Your task to perform on an android device: change notification settings in the gmail app Image 0: 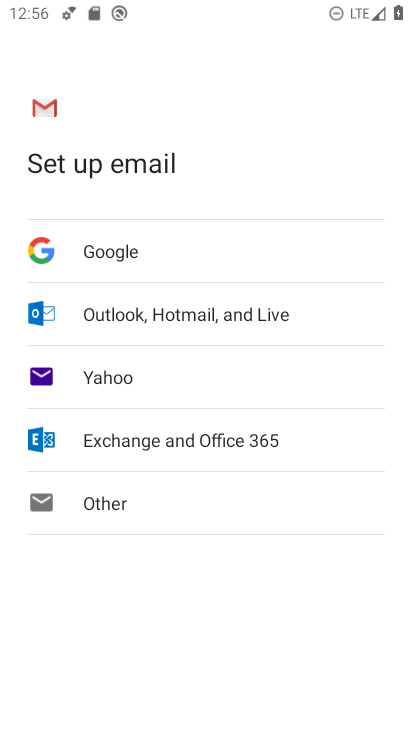
Step 0: press home button
Your task to perform on an android device: change notification settings in the gmail app Image 1: 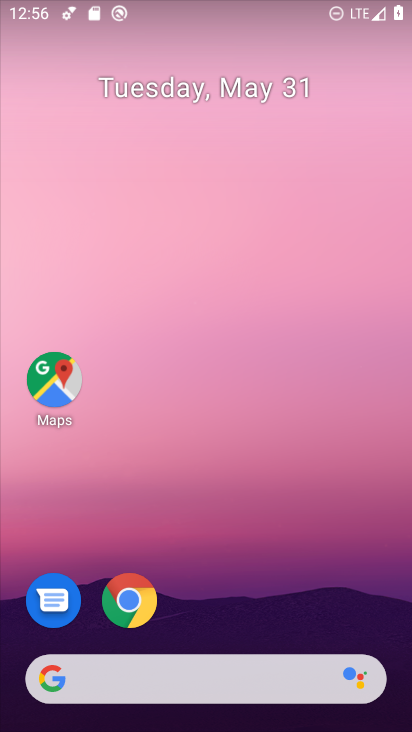
Step 1: drag from (238, 659) to (243, 305)
Your task to perform on an android device: change notification settings in the gmail app Image 2: 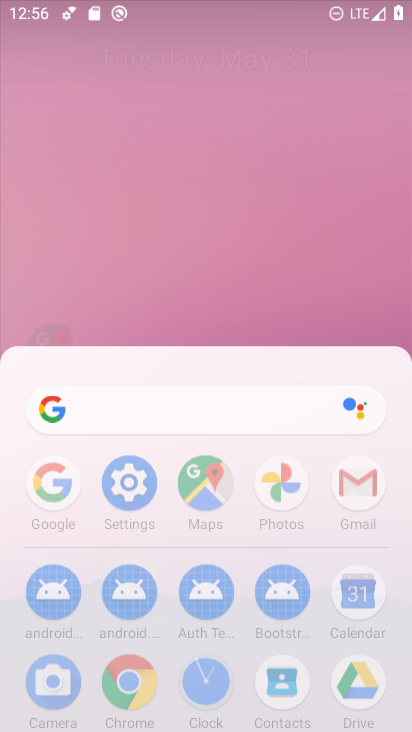
Step 2: click (235, 10)
Your task to perform on an android device: change notification settings in the gmail app Image 3: 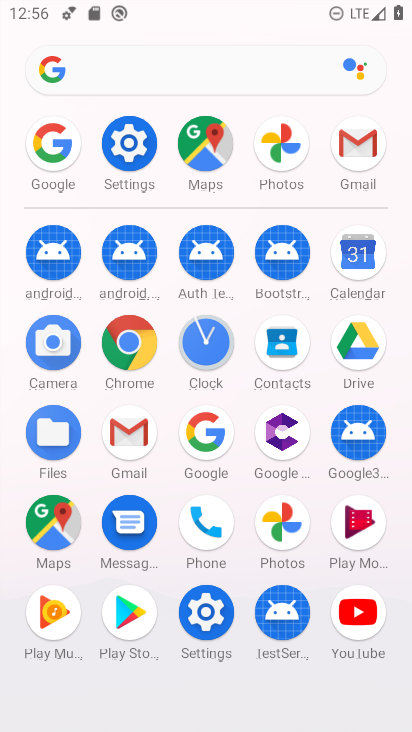
Step 3: click (124, 438)
Your task to perform on an android device: change notification settings in the gmail app Image 4: 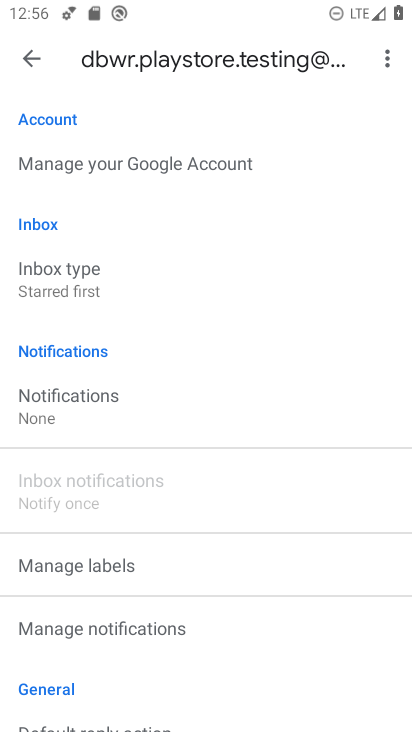
Step 4: click (66, 399)
Your task to perform on an android device: change notification settings in the gmail app Image 5: 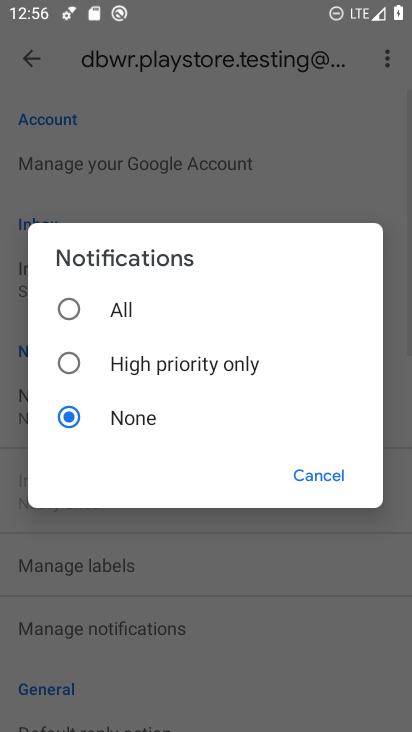
Step 5: click (67, 300)
Your task to perform on an android device: change notification settings in the gmail app Image 6: 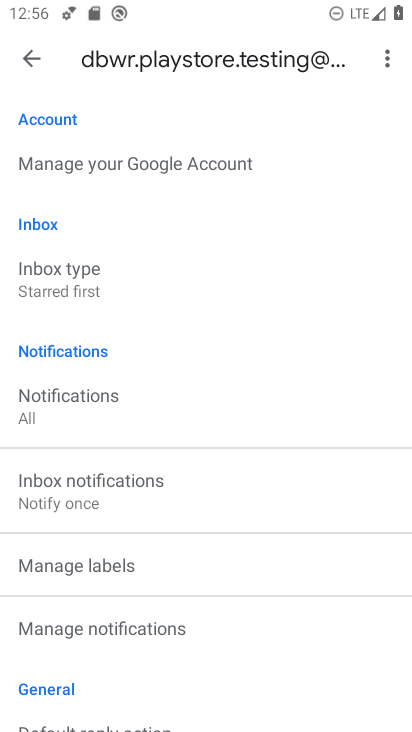
Step 6: task complete